Your task to perform on an android device: open a bookmark in the chrome app Image 0: 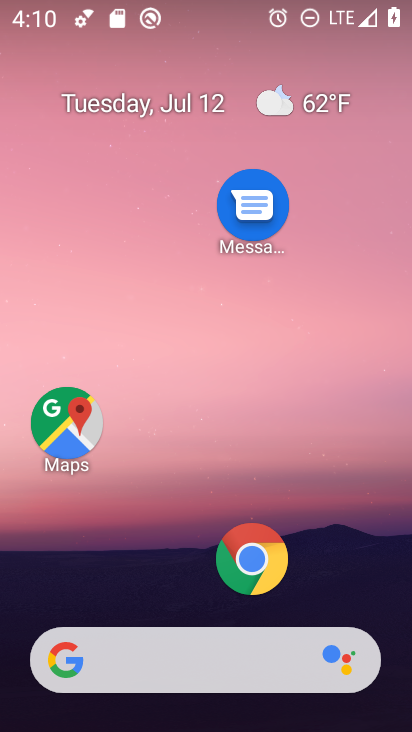
Step 0: click (267, 564)
Your task to perform on an android device: open a bookmark in the chrome app Image 1: 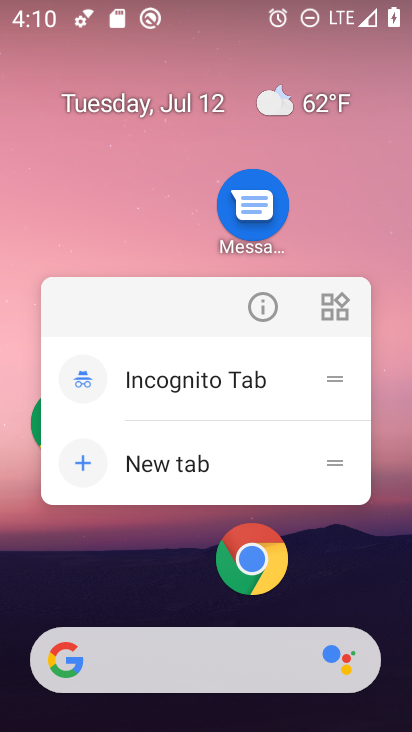
Step 1: click (272, 561)
Your task to perform on an android device: open a bookmark in the chrome app Image 2: 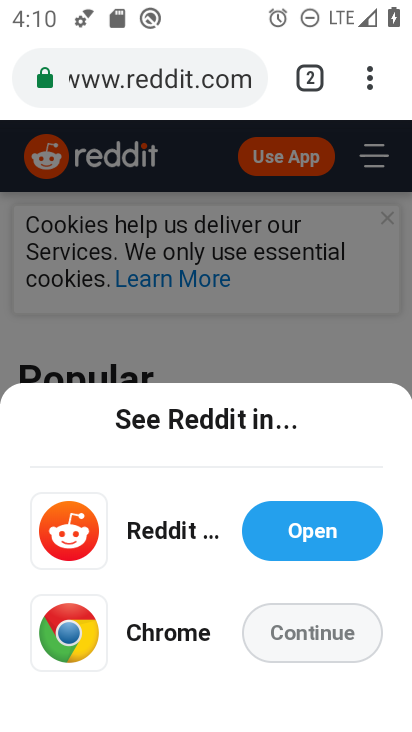
Step 2: drag from (375, 64) to (109, 273)
Your task to perform on an android device: open a bookmark in the chrome app Image 3: 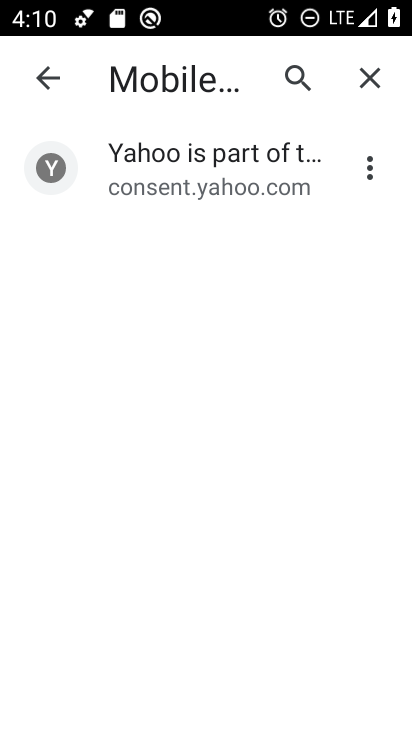
Step 3: click (225, 174)
Your task to perform on an android device: open a bookmark in the chrome app Image 4: 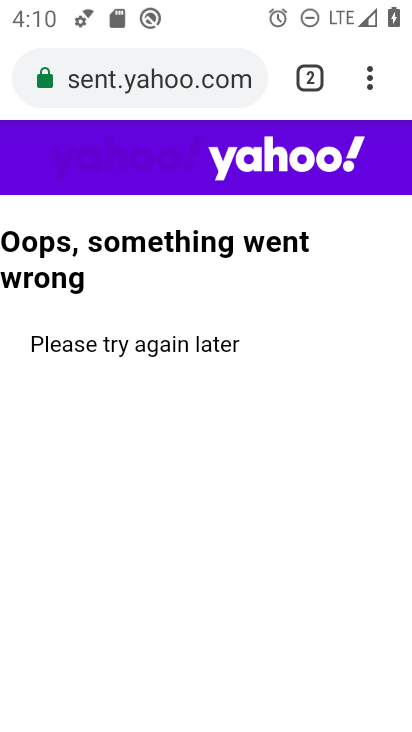
Step 4: task complete